Your task to perform on an android device: toggle improve location accuracy Image 0: 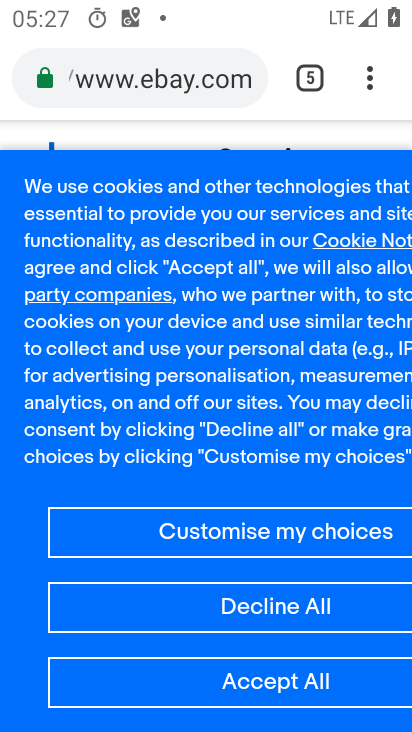
Step 0: press home button
Your task to perform on an android device: toggle improve location accuracy Image 1: 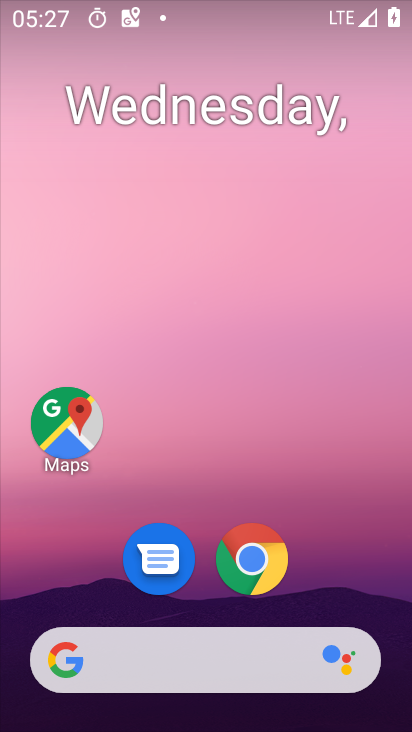
Step 1: drag from (302, 436) to (200, 62)
Your task to perform on an android device: toggle improve location accuracy Image 2: 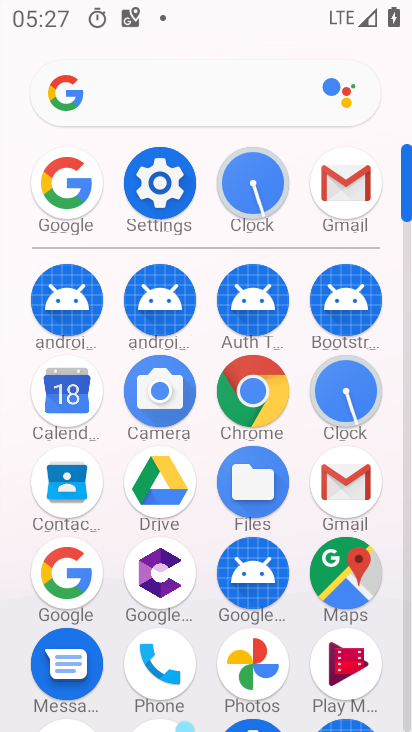
Step 2: click (160, 174)
Your task to perform on an android device: toggle improve location accuracy Image 3: 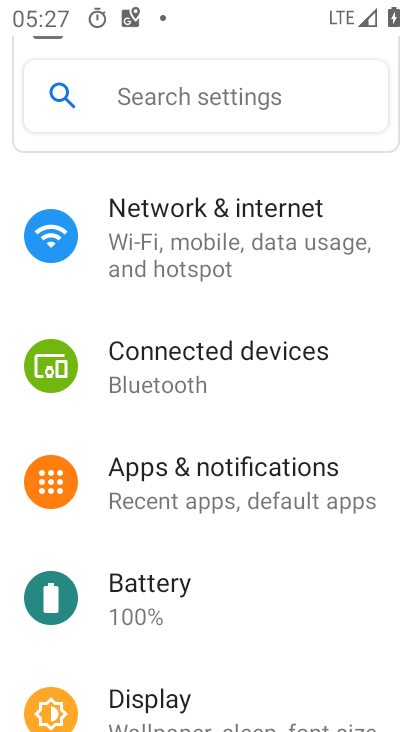
Step 3: drag from (257, 611) to (279, 152)
Your task to perform on an android device: toggle improve location accuracy Image 4: 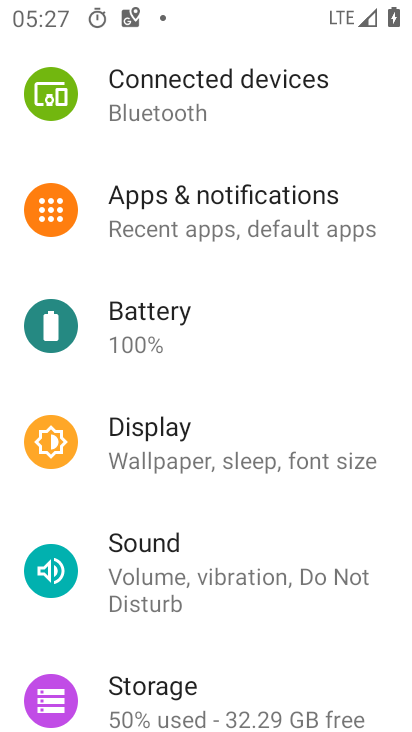
Step 4: drag from (228, 346) to (201, 119)
Your task to perform on an android device: toggle improve location accuracy Image 5: 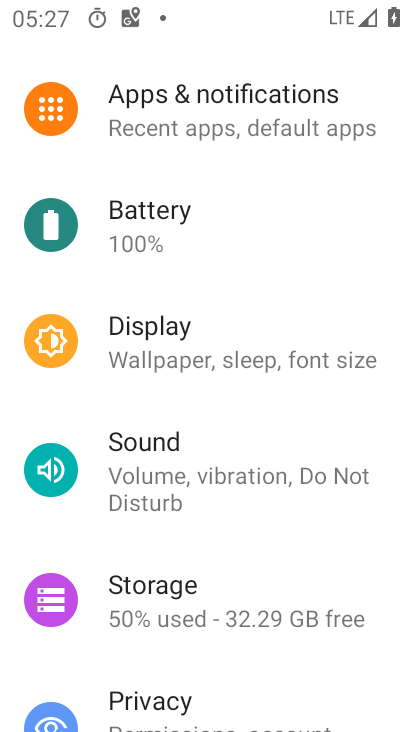
Step 5: drag from (229, 627) to (228, 183)
Your task to perform on an android device: toggle improve location accuracy Image 6: 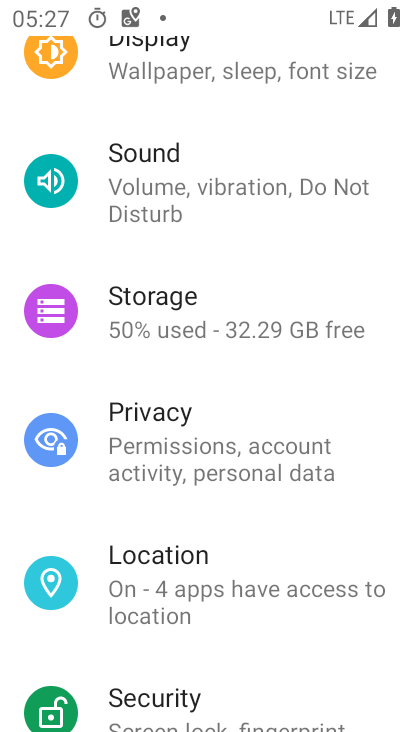
Step 6: click (180, 601)
Your task to perform on an android device: toggle improve location accuracy Image 7: 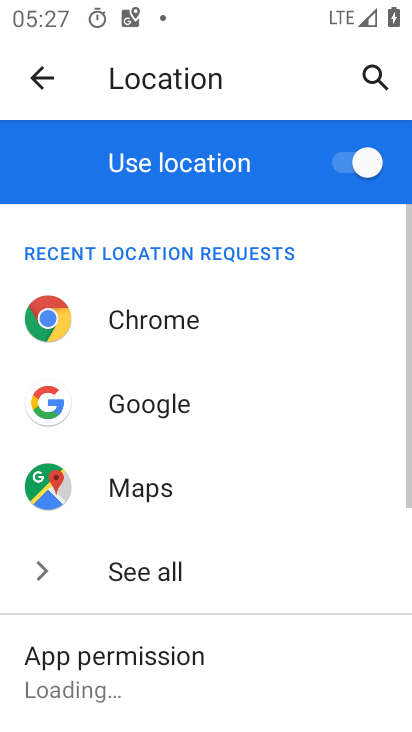
Step 7: drag from (293, 628) to (243, 97)
Your task to perform on an android device: toggle improve location accuracy Image 8: 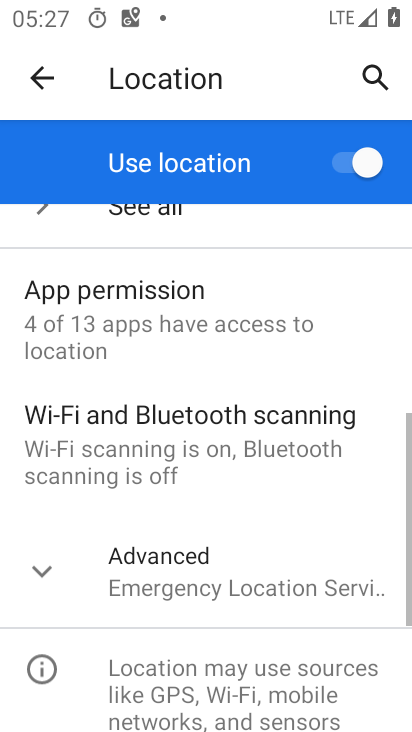
Step 8: click (232, 561)
Your task to perform on an android device: toggle improve location accuracy Image 9: 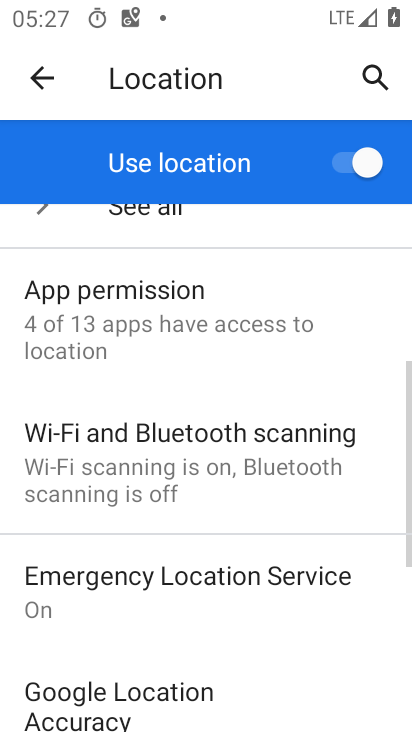
Step 9: click (243, 690)
Your task to perform on an android device: toggle improve location accuracy Image 10: 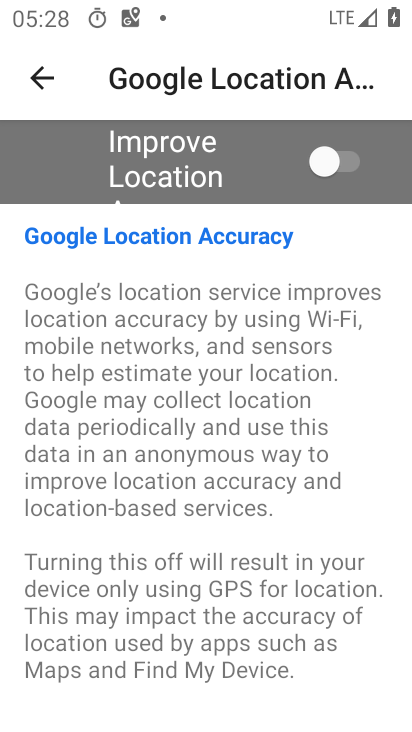
Step 10: click (330, 163)
Your task to perform on an android device: toggle improve location accuracy Image 11: 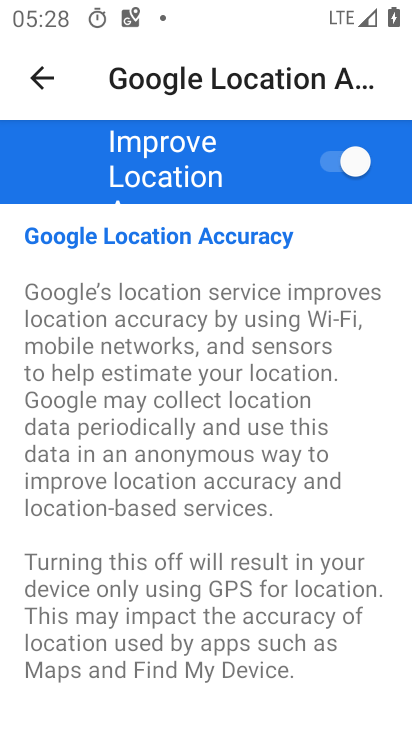
Step 11: task complete